Your task to perform on an android device: Open Google Chrome Image 0: 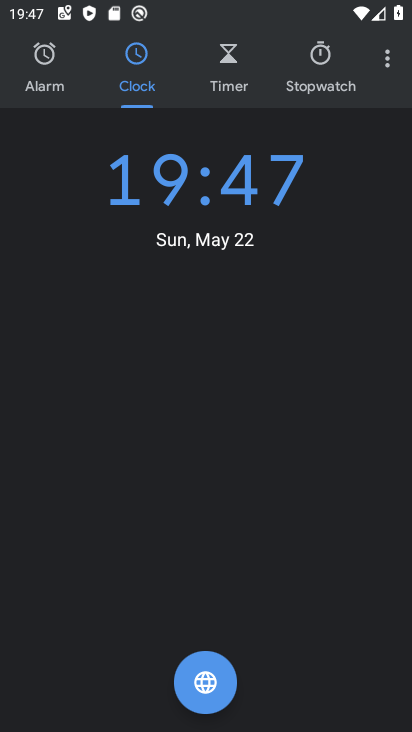
Step 0: press back button
Your task to perform on an android device: Open Google Chrome Image 1: 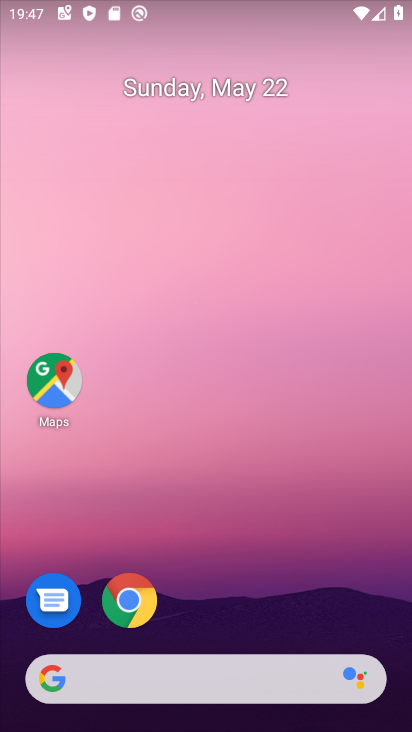
Step 1: drag from (238, 594) to (245, 75)
Your task to perform on an android device: Open Google Chrome Image 2: 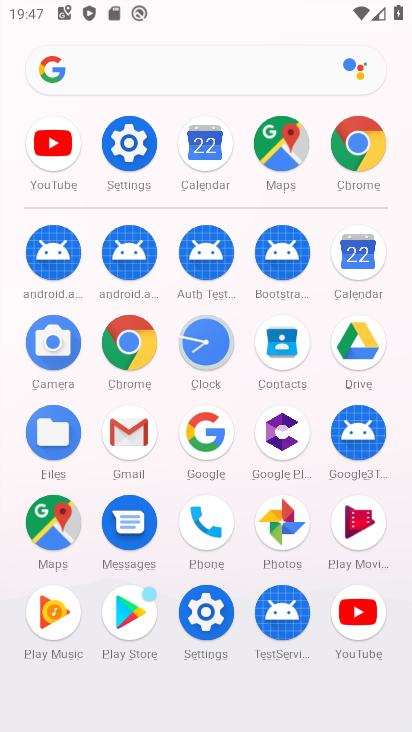
Step 2: click (131, 343)
Your task to perform on an android device: Open Google Chrome Image 3: 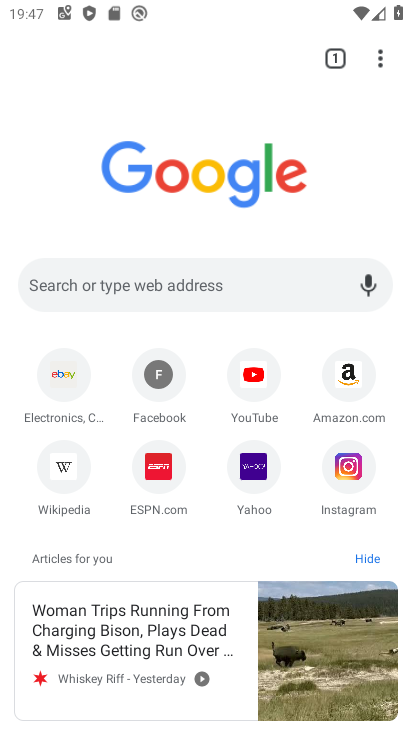
Step 3: task complete